Your task to perform on an android device: Open settings Image 0: 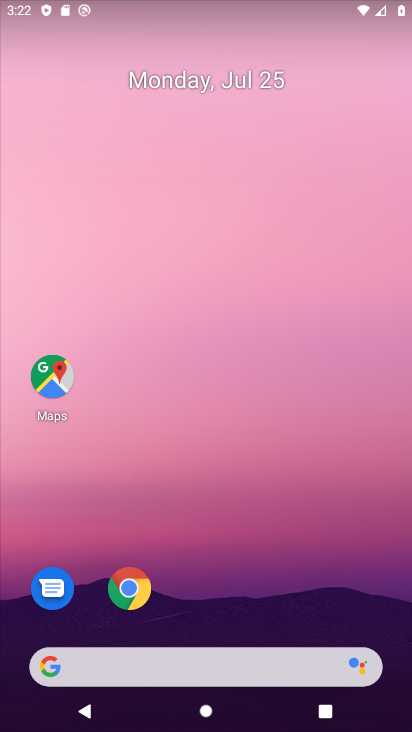
Step 0: press home button
Your task to perform on an android device: Open settings Image 1: 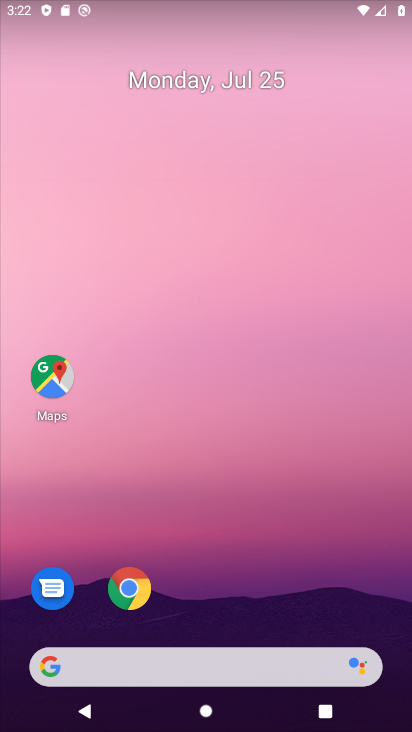
Step 1: drag from (229, 716) to (222, 160)
Your task to perform on an android device: Open settings Image 2: 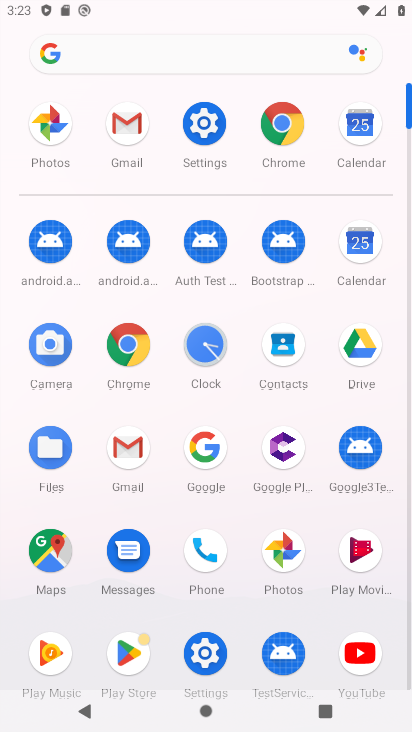
Step 2: click (207, 129)
Your task to perform on an android device: Open settings Image 3: 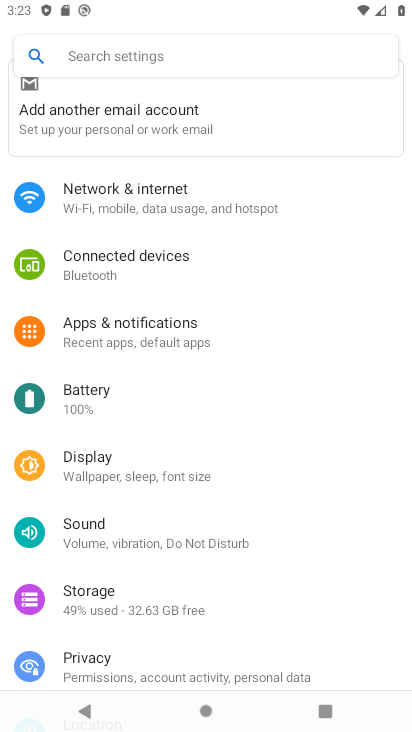
Step 3: task complete